Your task to perform on an android device: turn on bluetooth scan Image 0: 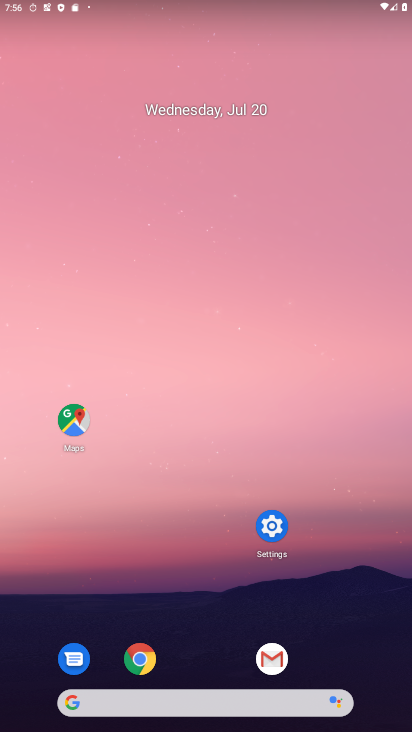
Step 0: click (278, 530)
Your task to perform on an android device: turn on bluetooth scan Image 1: 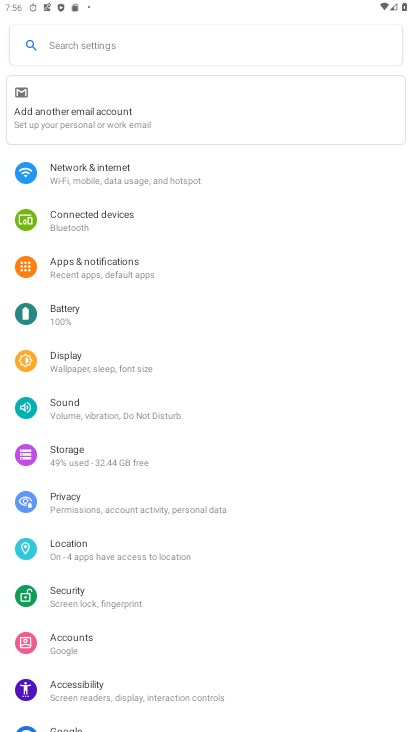
Step 1: click (135, 546)
Your task to perform on an android device: turn on bluetooth scan Image 2: 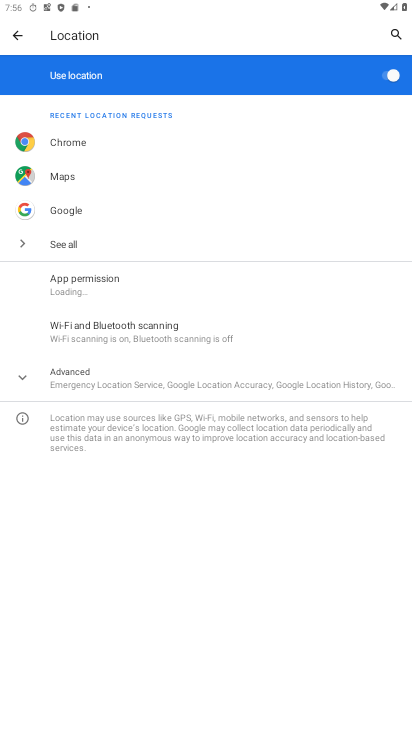
Step 2: click (129, 329)
Your task to perform on an android device: turn on bluetooth scan Image 3: 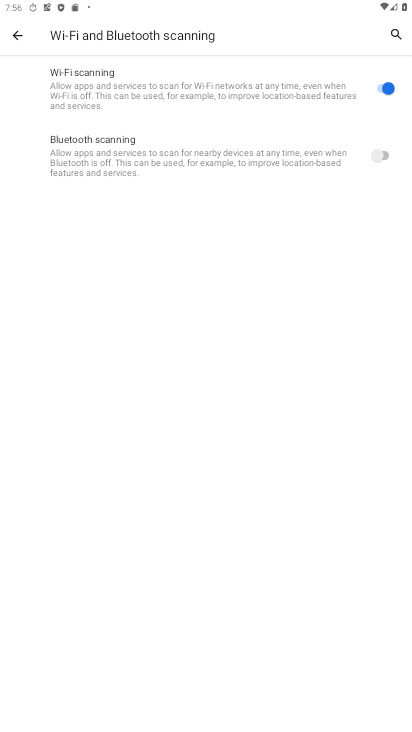
Step 3: click (326, 152)
Your task to perform on an android device: turn on bluetooth scan Image 4: 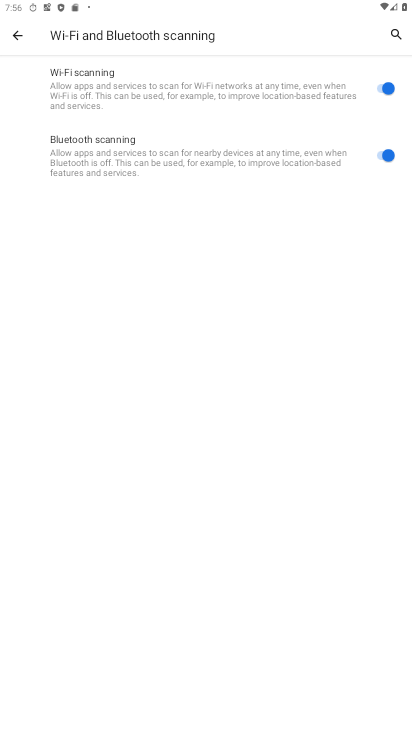
Step 4: task complete